Your task to perform on an android device: Search for Mexican restaurants on Maps Image 0: 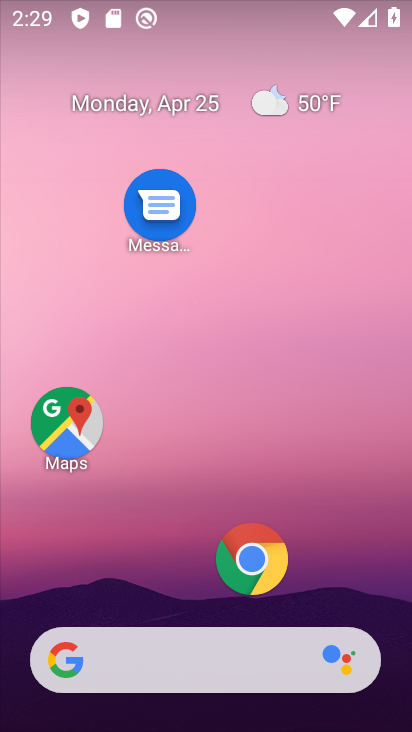
Step 0: click (68, 413)
Your task to perform on an android device: Search for Mexican restaurants on Maps Image 1: 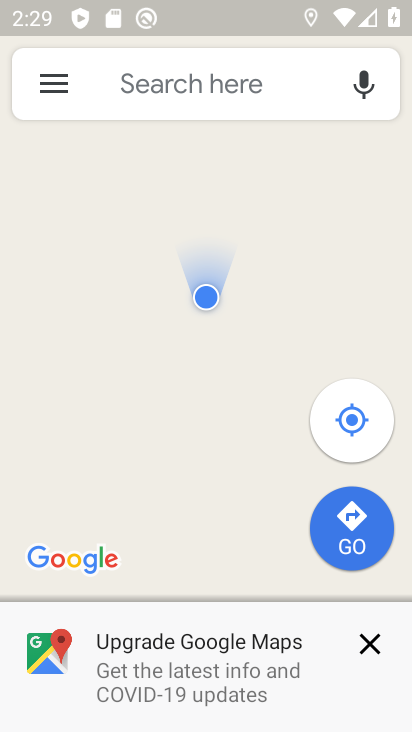
Step 1: click (193, 81)
Your task to perform on an android device: Search for Mexican restaurants on Maps Image 2: 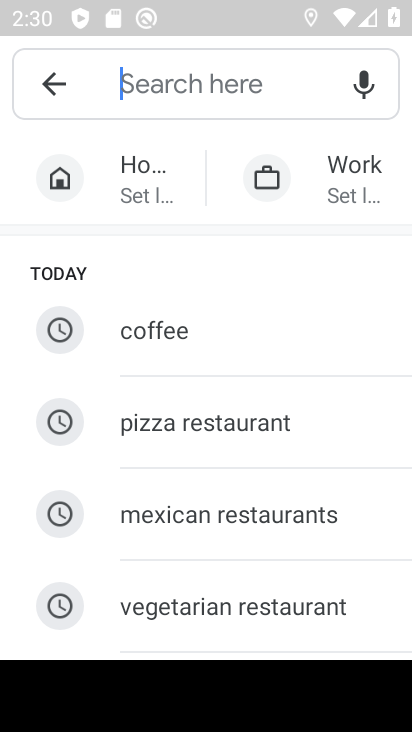
Step 2: type "mexican restaurants"
Your task to perform on an android device: Search for Mexican restaurants on Maps Image 3: 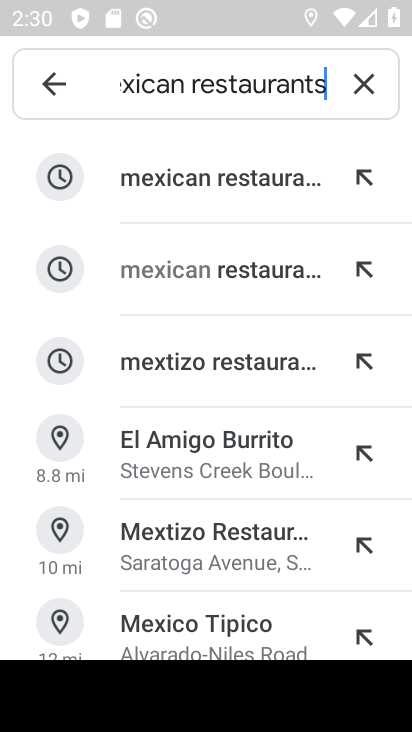
Step 3: click (189, 191)
Your task to perform on an android device: Search for Mexican restaurants on Maps Image 4: 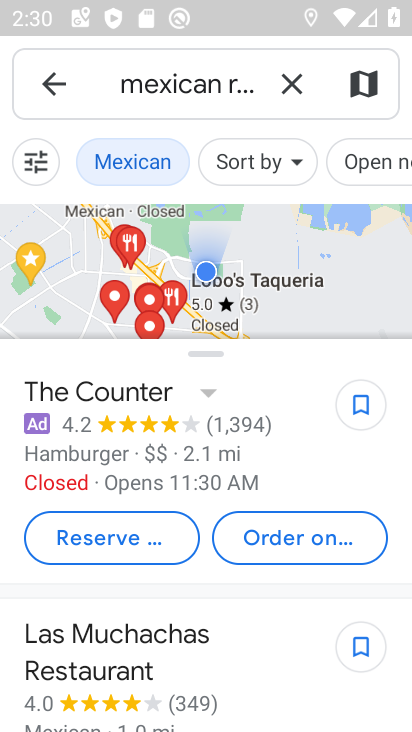
Step 4: task complete